Your task to perform on an android device: add a contact Image 0: 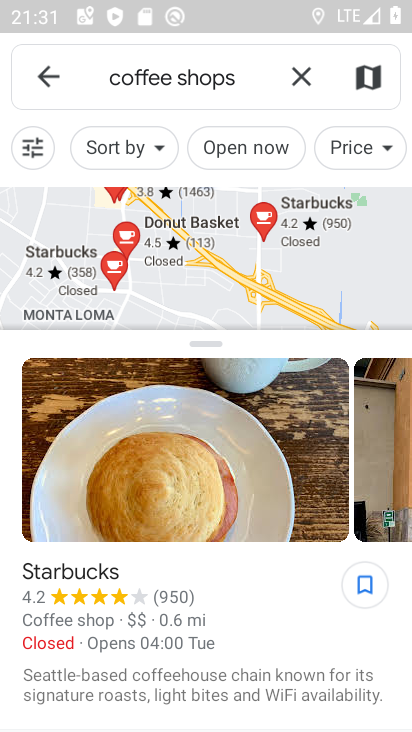
Step 0: press home button
Your task to perform on an android device: add a contact Image 1: 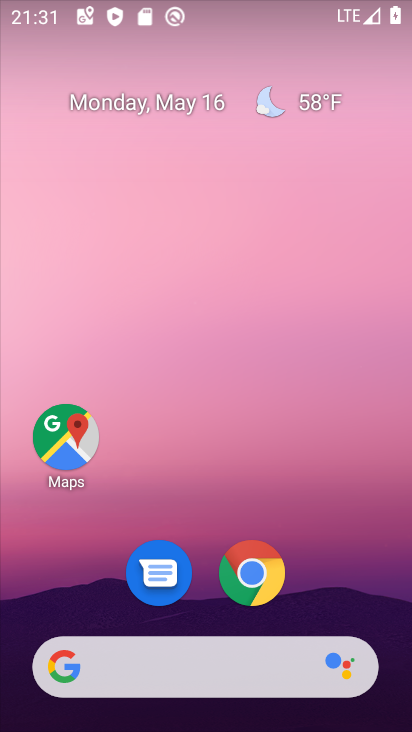
Step 1: drag from (224, 719) to (234, 65)
Your task to perform on an android device: add a contact Image 2: 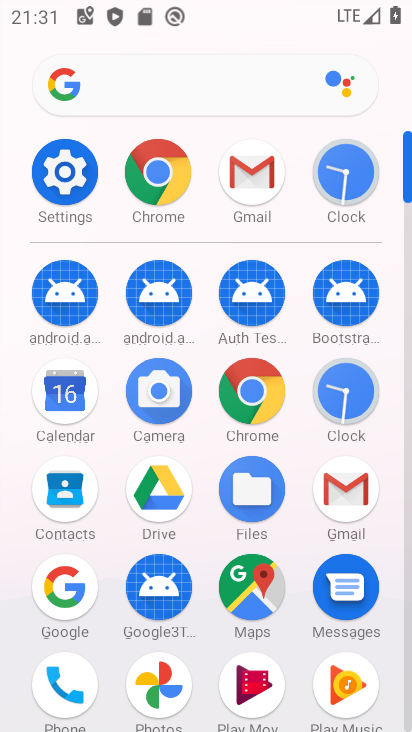
Step 2: click (56, 500)
Your task to perform on an android device: add a contact Image 3: 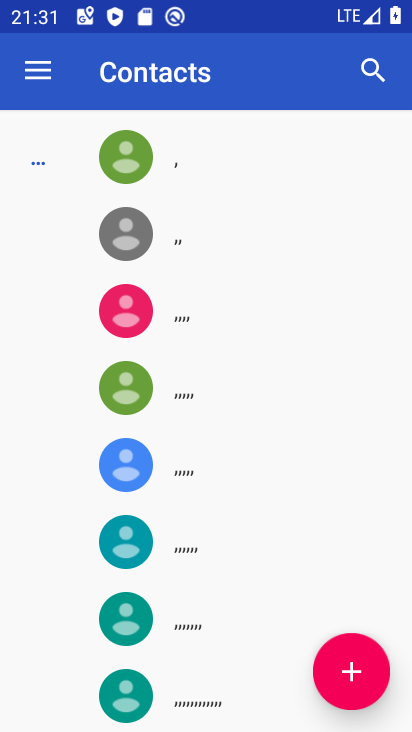
Step 3: click (348, 666)
Your task to perform on an android device: add a contact Image 4: 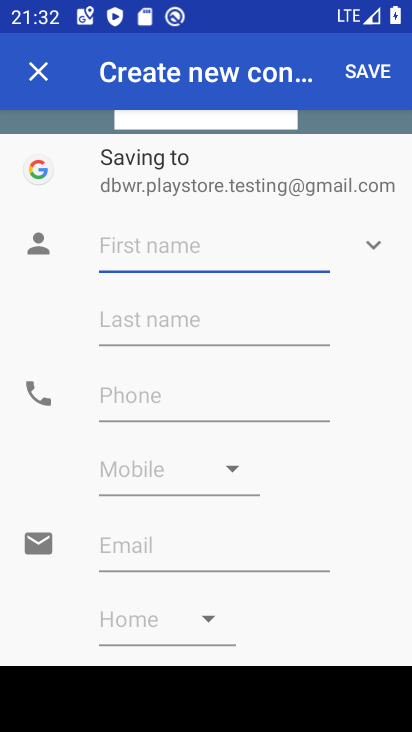
Step 4: type "ubantu"
Your task to perform on an android device: add a contact Image 5: 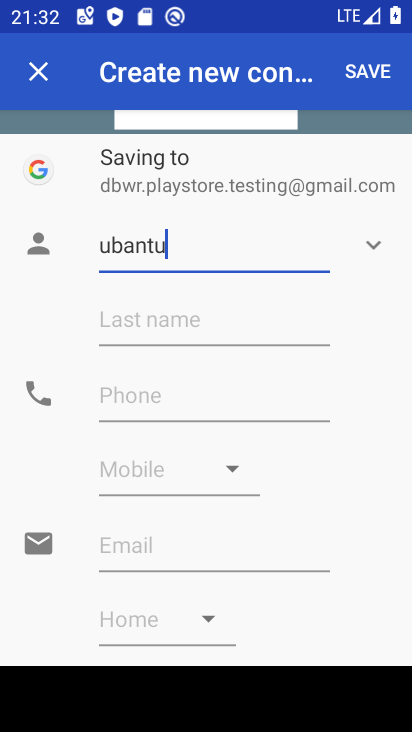
Step 5: click (150, 393)
Your task to perform on an android device: add a contact Image 6: 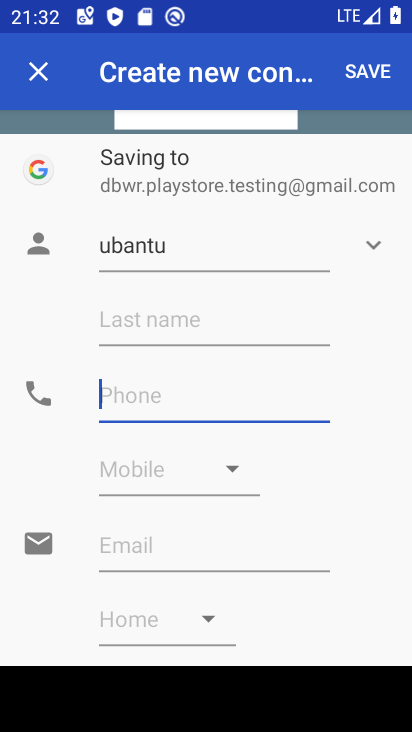
Step 6: type "8788787"
Your task to perform on an android device: add a contact Image 7: 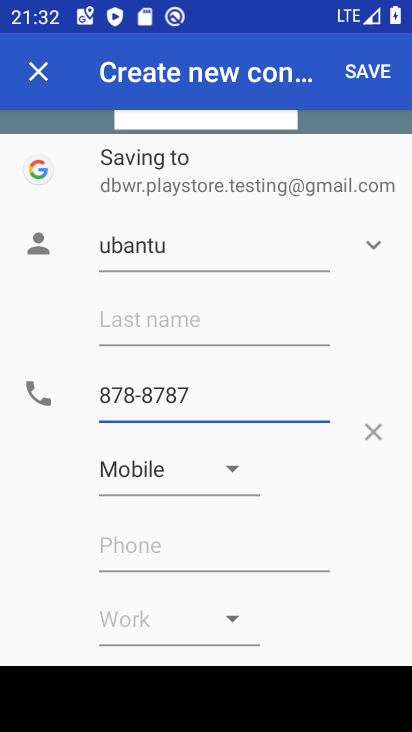
Step 7: click (355, 70)
Your task to perform on an android device: add a contact Image 8: 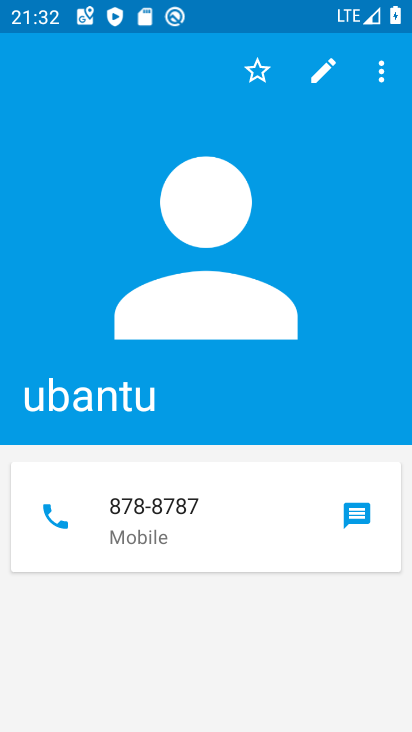
Step 8: task complete